Your task to perform on an android device: change alarm snooze length Image 0: 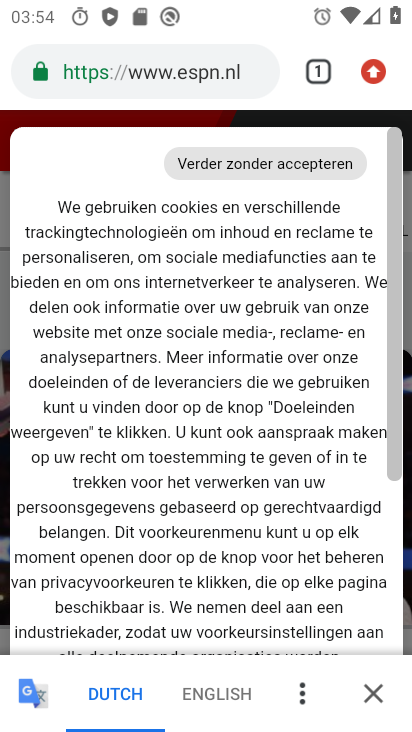
Step 0: press home button
Your task to perform on an android device: change alarm snooze length Image 1: 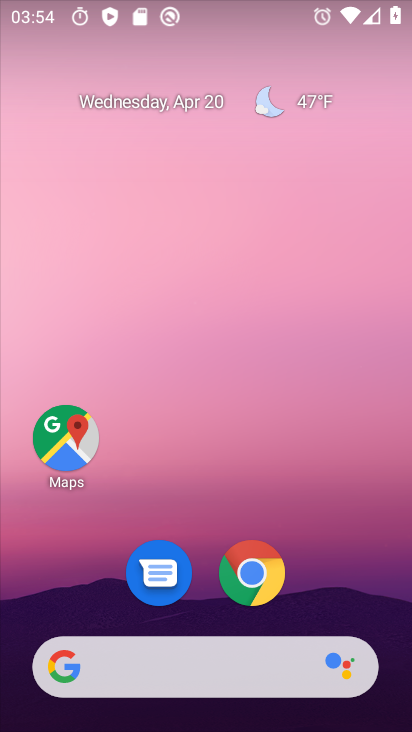
Step 1: drag from (207, 716) to (214, 94)
Your task to perform on an android device: change alarm snooze length Image 2: 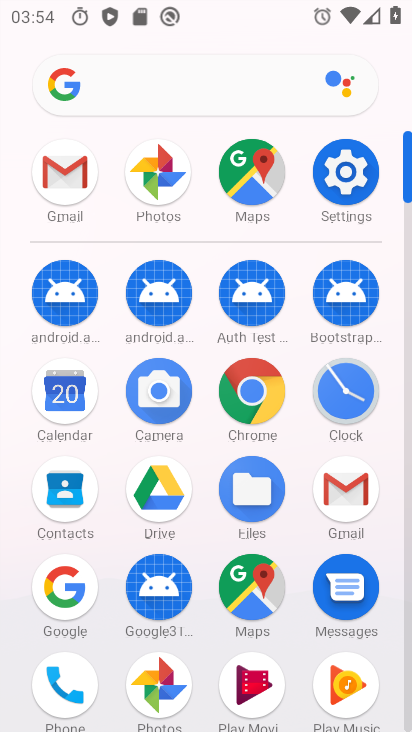
Step 2: click (346, 386)
Your task to perform on an android device: change alarm snooze length Image 3: 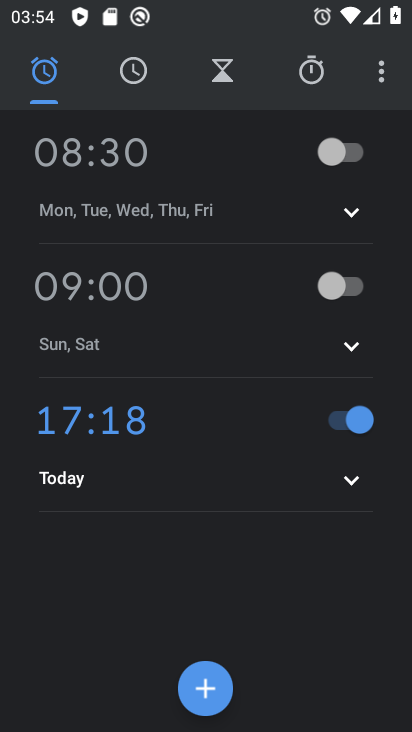
Step 3: click (380, 73)
Your task to perform on an android device: change alarm snooze length Image 4: 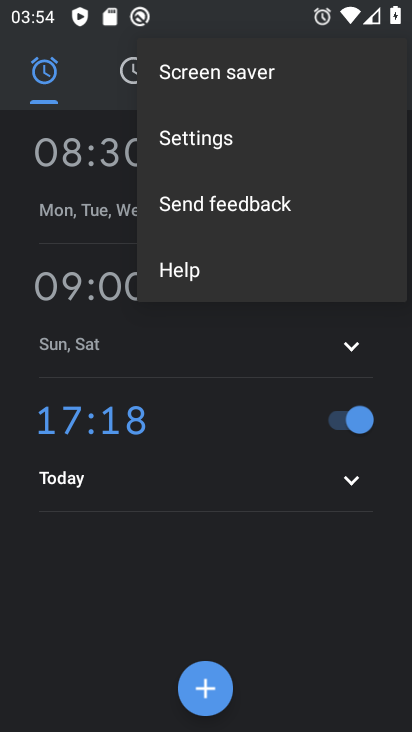
Step 4: click (194, 140)
Your task to perform on an android device: change alarm snooze length Image 5: 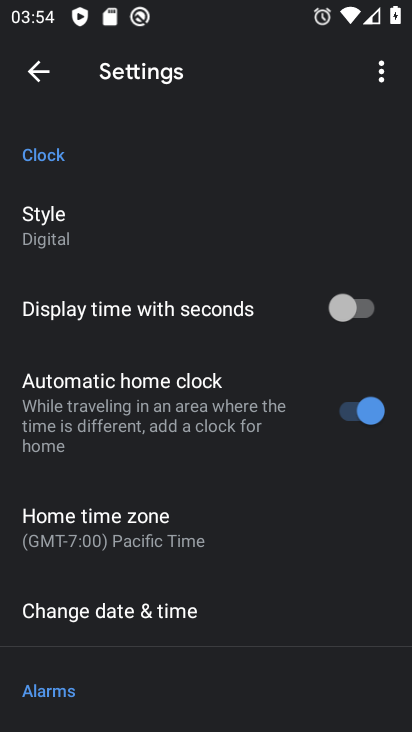
Step 5: drag from (177, 642) to (175, 378)
Your task to perform on an android device: change alarm snooze length Image 6: 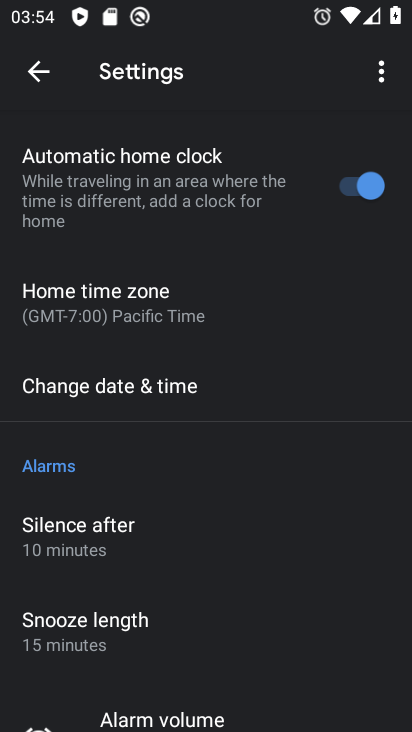
Step 6: click (73, 630)
Your task to perform on an android device: change alarm snooze length Image 7: 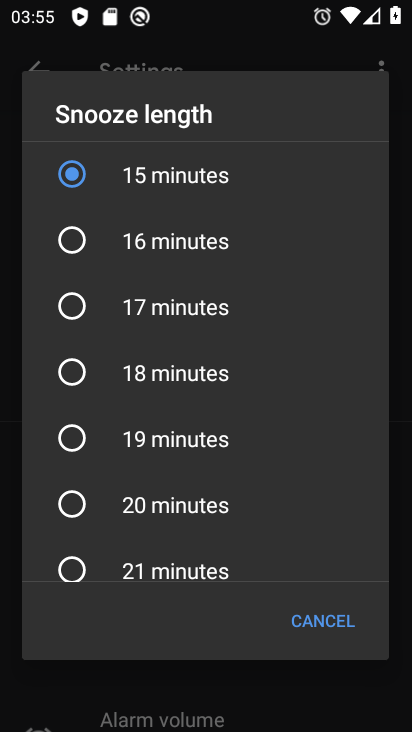
Step 7: click (72, 503)
Your task to perform on an android device: change alarm snooze length Image 8: 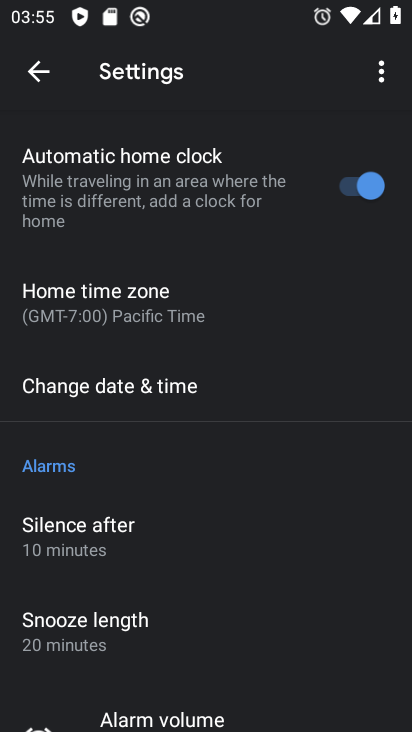
Step 8: task complete